Your task to perform on an android device: Search for Mexican restaurants on Maps Image 0: 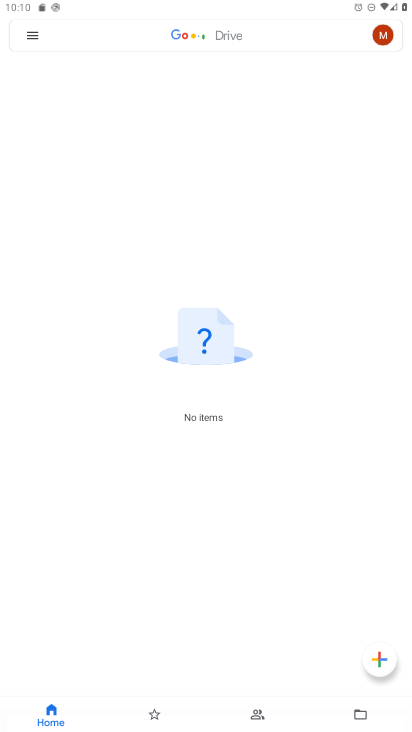
Step 0: drag from (190, 622) to (208, 232)
Your task to perform on an android device: Search for Mexican restaurants on Maps Image 1: 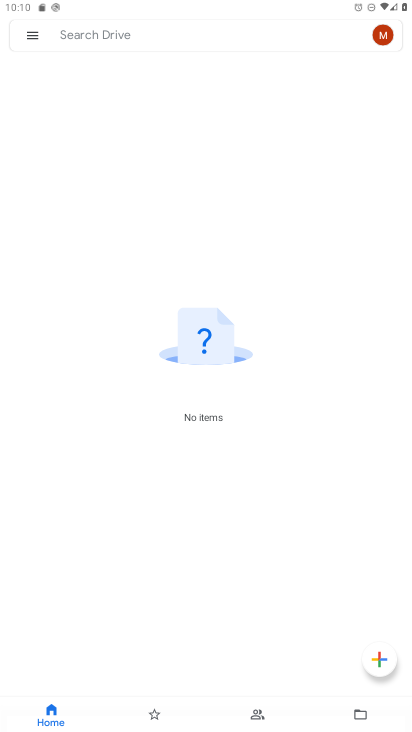
Step 1: press home button
Your task to perform on an android device: Search for Mexican restaurants on Maps Image 2: 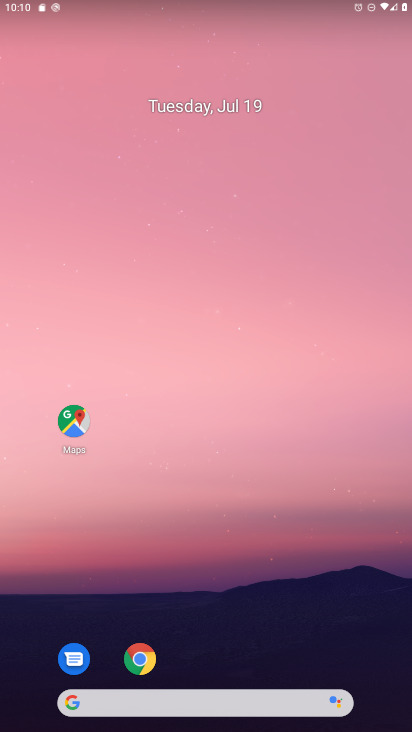
Step 2: click (68, 421)
Your task to perform on an android device: Search for Mexican restaurants on Maps Image 3: 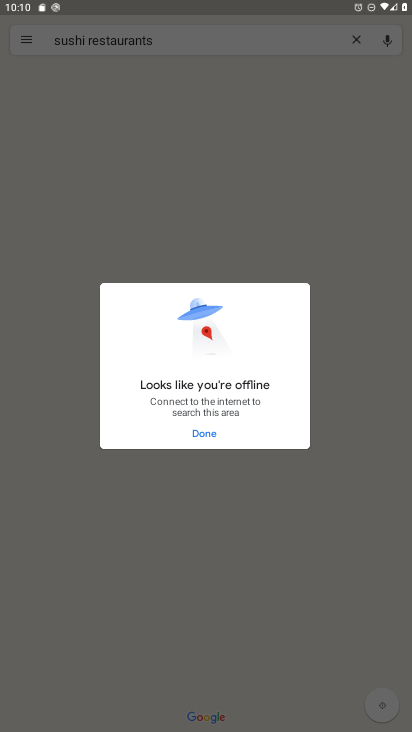
Step 3: click (221, 435)
Your task to perform on an android device: Search for Mexican restaurants on Maps Image 4: 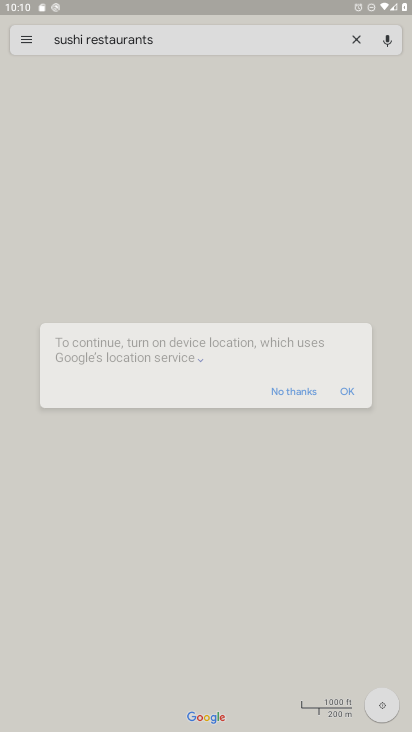
Step 4: click (365, 36)
Your task to perform on an android device: Search for Mexican restaurants on Maps Image 5: 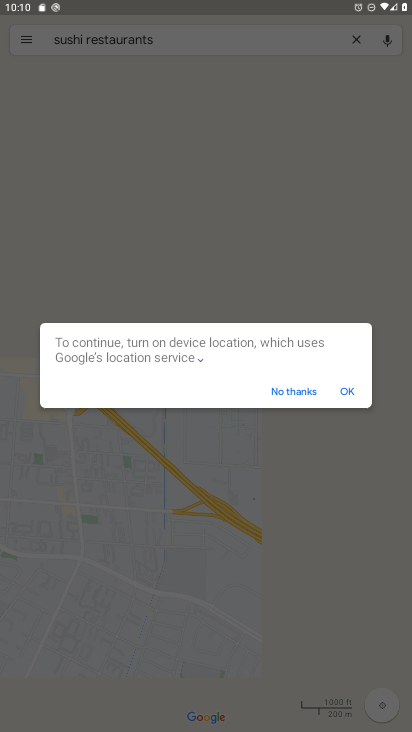
Step 5: click (302, 404)
Your task to perform on an android device: Search for Mexican restaurants on Maps Image 6: 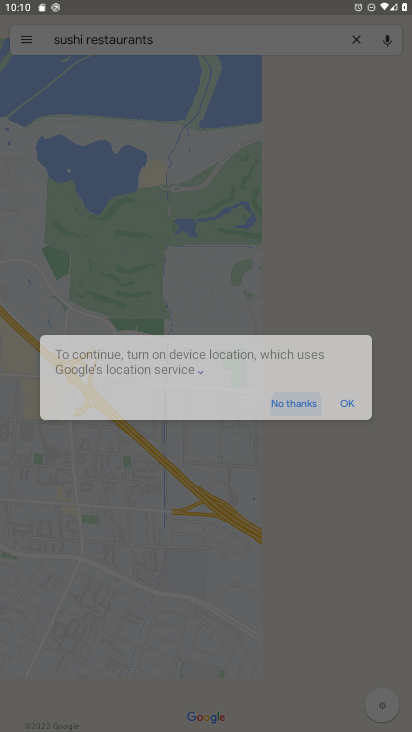
Step 6: click (302, 380)
Your task to perform on an android device: Search for Mexican restaurants on Maps Image 7: 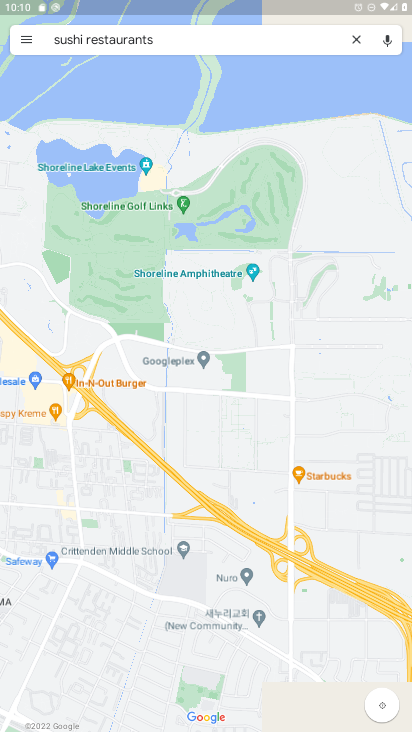
Step 7: click (351, 43)
Your task to perform on an android device: Search for Mexican restaurants on Maps Image 8: 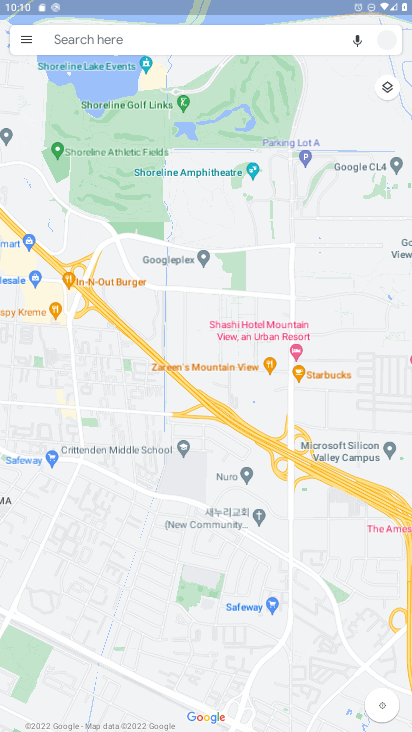
Step 8: click (242, 38)
Your task to perform on an android device: Search for Mexican restaurants on Maps Image 9: 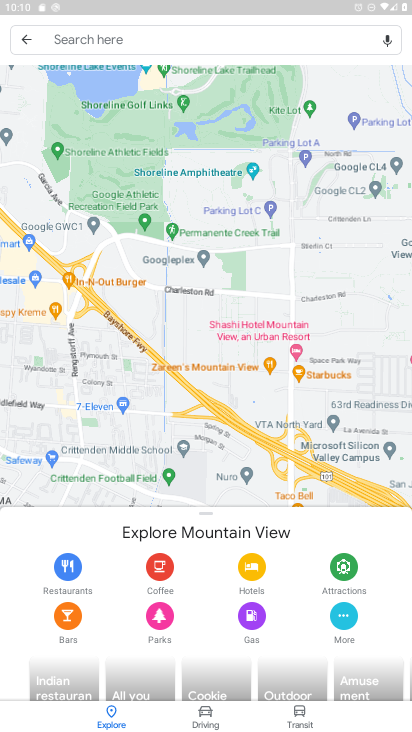
Step 9: click (170, 31)
Your task to perform on an android device: Search for Mexican restaurants on Maps Image 10: 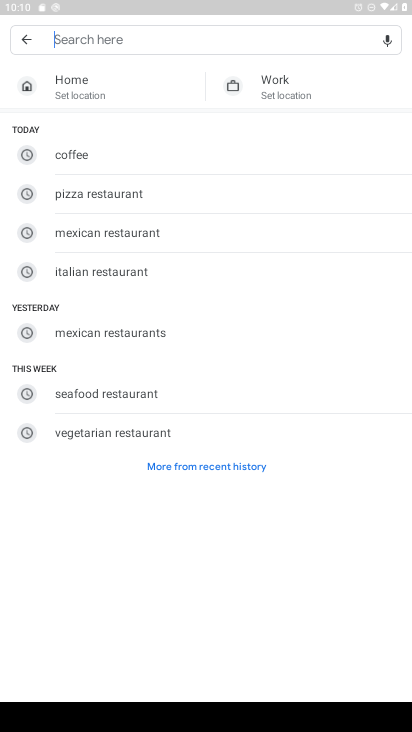
Step 10: click (119, 232)
Your task to perform on an android device: Search for Mexican restaurants on Maps Image 11: 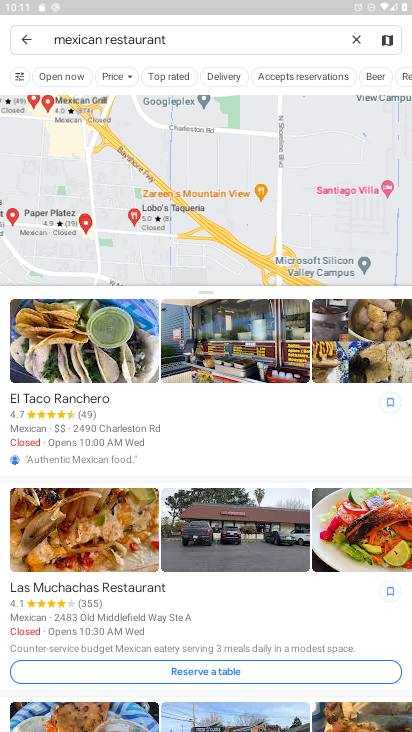
Step 11: task complete